Your task to perform on an android device: Go to Amazon Image 0: 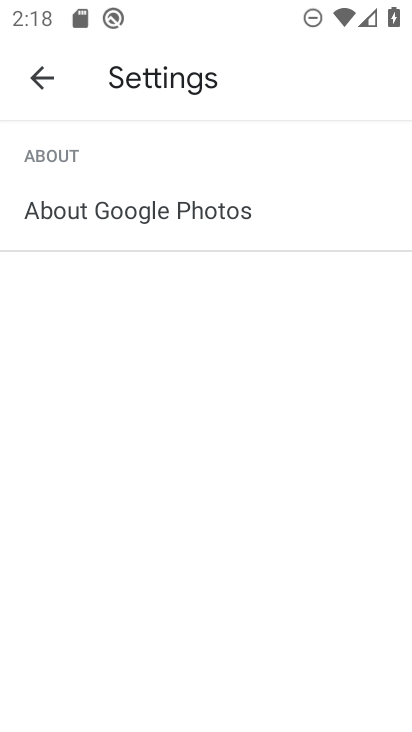
Step 0: press home button
Your task to perform on an android device: Go to Amazon Image 1: 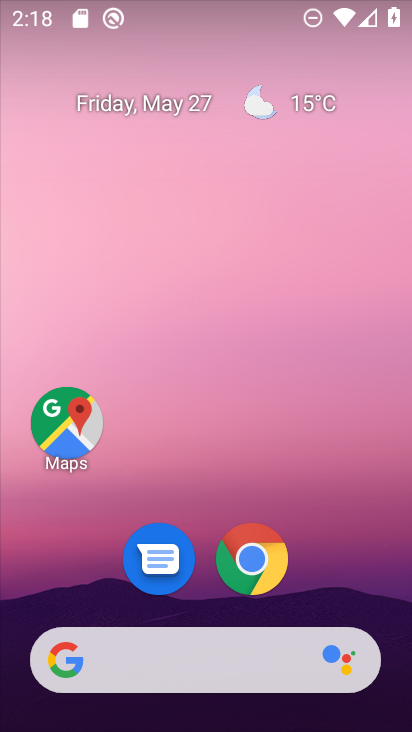
Step 1: drag from (287, 680) to (259, 49)
Your task to perform on an android device: Go to Amazon Image 2: 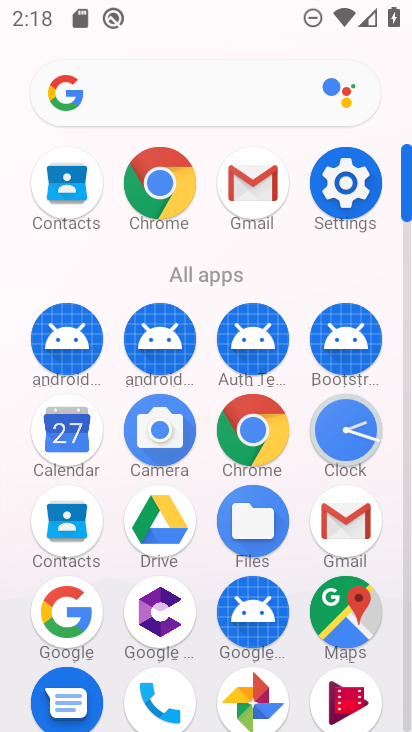
Step 2: click (270, 436)
Your task to perform on an android device: Go to Amazon Image 3: 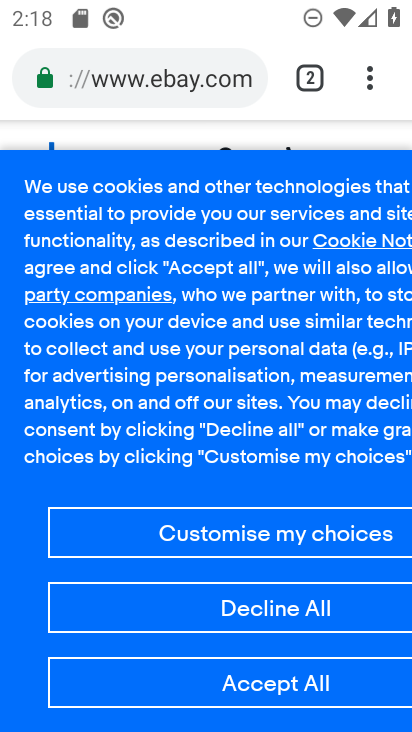
Step 3: drag from (374, 74) to (122, 160)
Your task to perform on an android device: Go to Amazon Image 4: 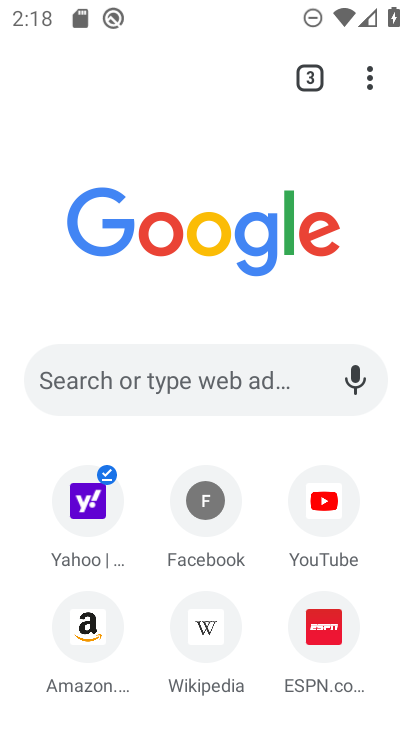
Step 4: click (99, 624)
Your task to perform on an android device: Go to Amazon Image 5: 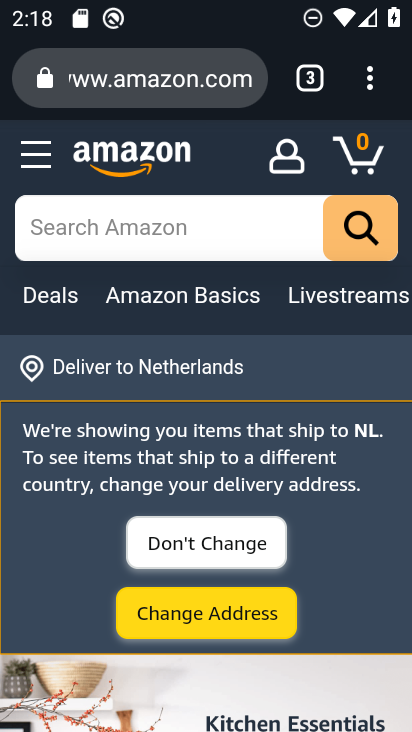
Step 5: task complete